Your task to perform on an android device: search for starred emails in the gmail app Image 0: 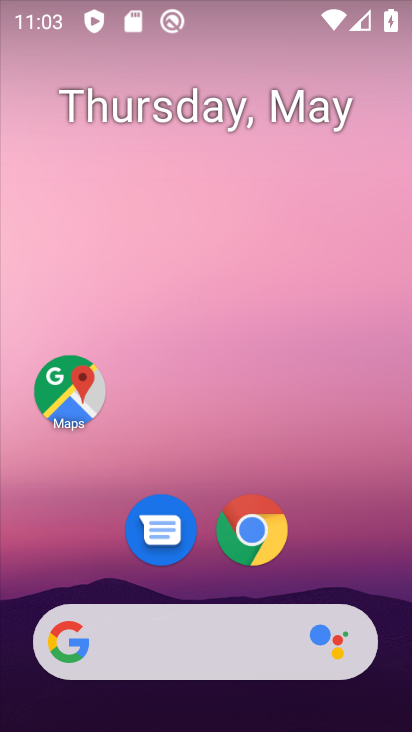
Step 0: drag from (338, 678) to (163, 137)
Your task to perform on an android device: search for starred emails in the gmail app Image 1: 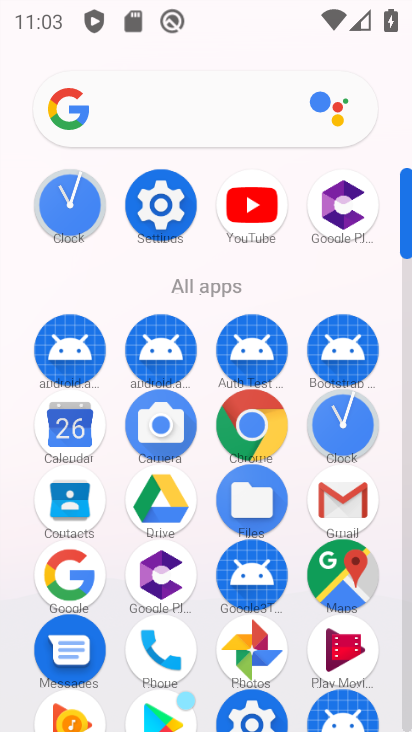
Step 1: click (343, 491)
Your task to perform on an android device: search for starred emails in the gmail app Image 2: 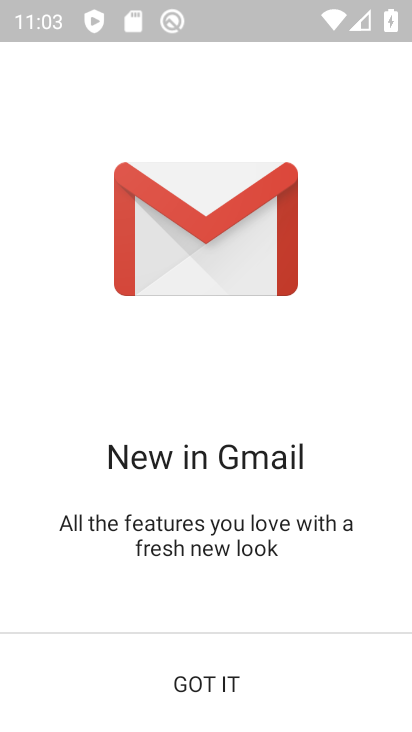
Step 2: click (201, 684)
Your task to perform on an android device: search for starred emails in the gmail app Image 3: 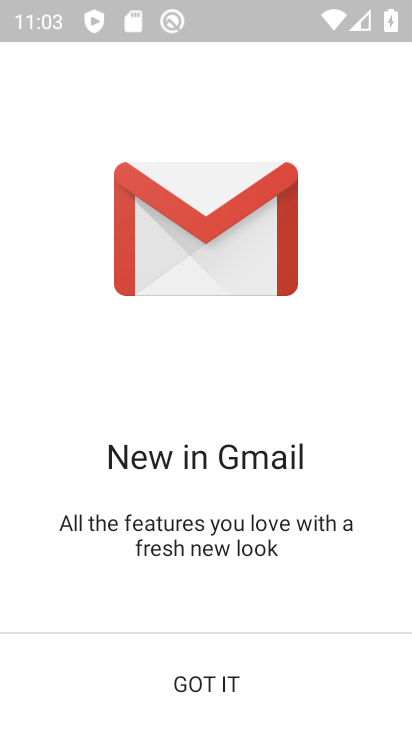
Step 3: click (201, 684)
Your task to perform on an android device: search for starred emails in the gmail app Image 4: 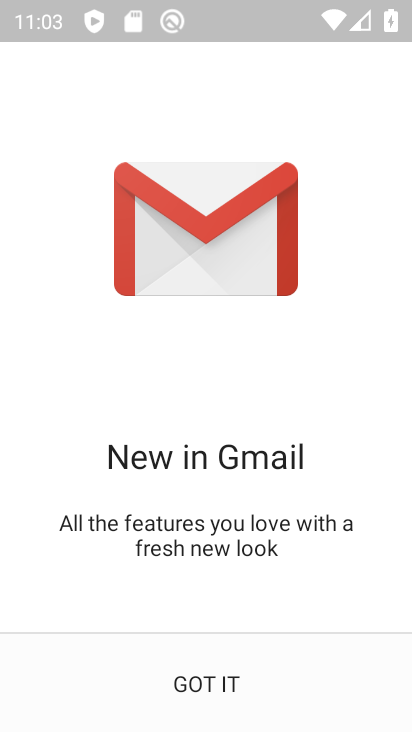
Step 4: click (201, 684)
Your task to perform on an android device: search for starred emails in the gmail app Image 5: 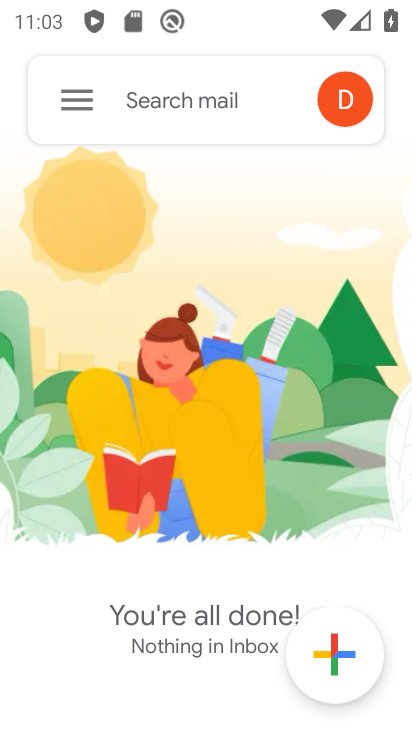
Step 5: click (73, 106)
Your task to perform on an android device: search for starred emails in the gmail app Image 6: 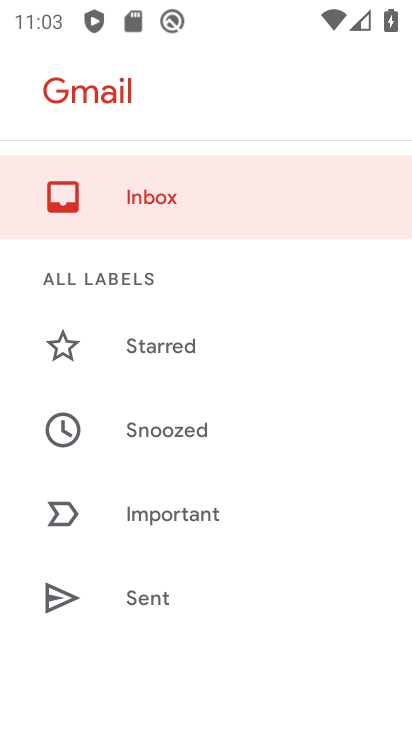
Step 6: click (134, 344)
Your task to perform on an android device: search for starred emails in the gmail app Image 7: 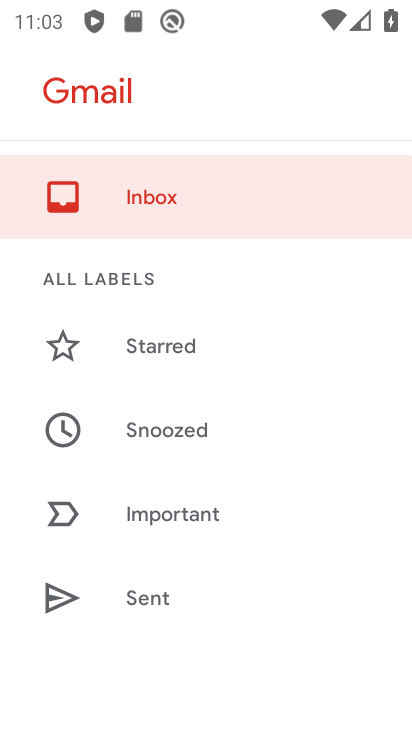
Step 7: click (135, 343)
Your task to perform on an android device: search for starred emails in the gmail app Image 8: 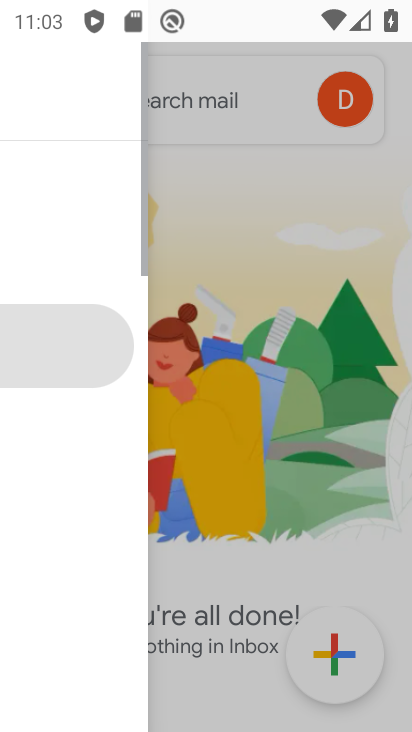
Step 8: task complete